Your task to perform on an android device: Turn on the flashlight Image 0: 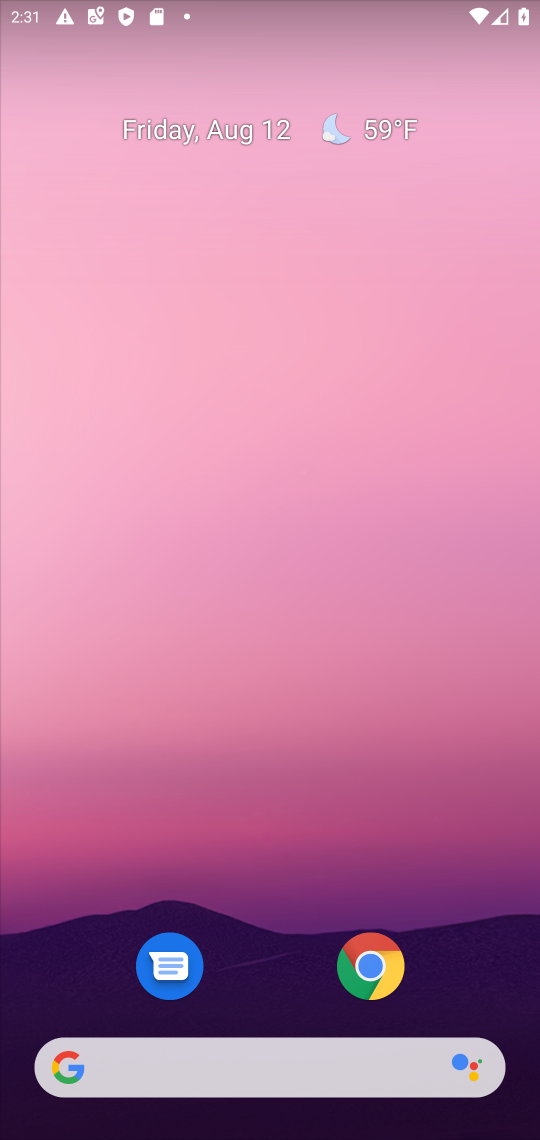
Step 0: drag from (275, 853) to (318, 578)
Your task to perform on an android device: Turn on the flashlight Image 1: 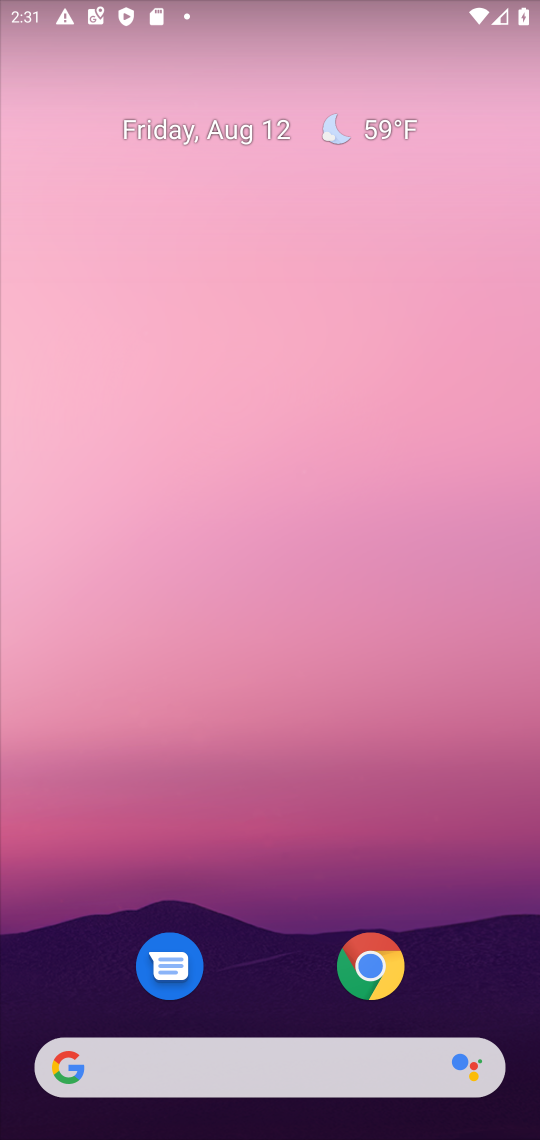
Step 1: drag from (229, 834) to (333, 136)
Your task to perform on an android device: Turn on the flashlight Image 2: 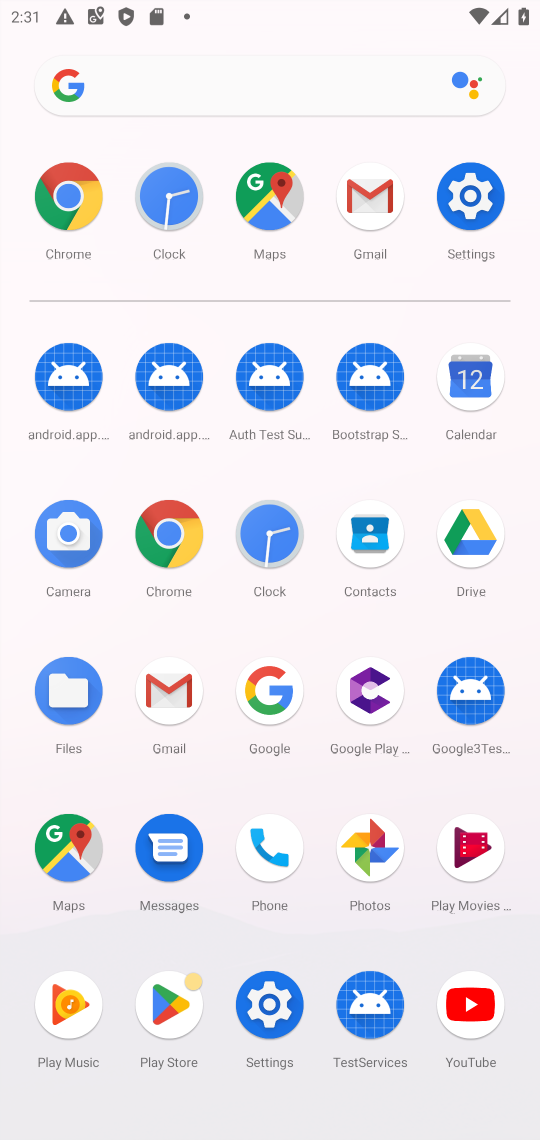
Step 2: click (266, 1005)
Your task to perform on an android device: Turn on the flashlight Image 3: 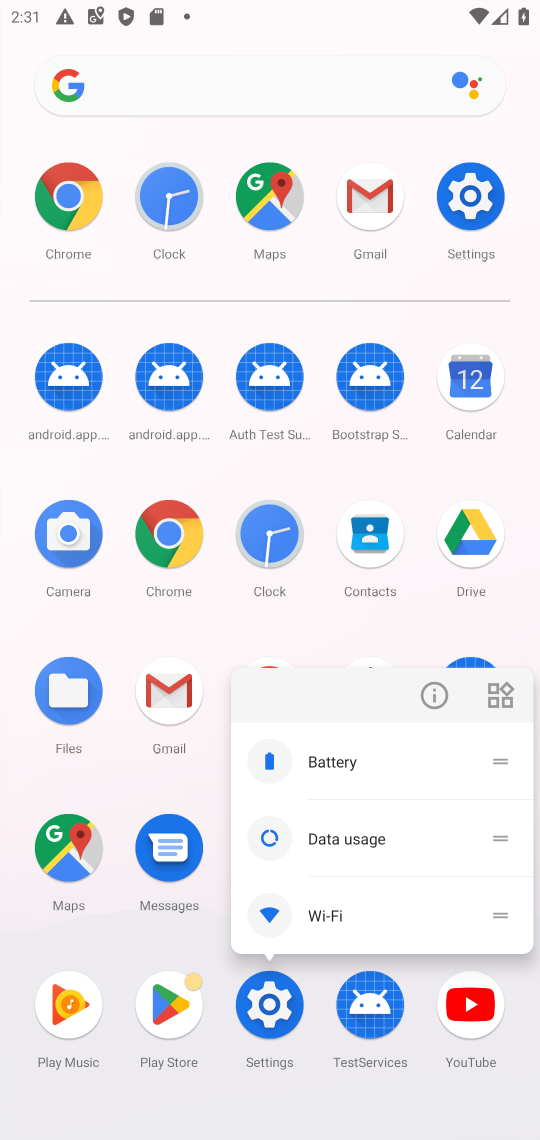
Step 3: click (268, 994)
Your task to perform on an android device: Turn on the flashlight Image 4: 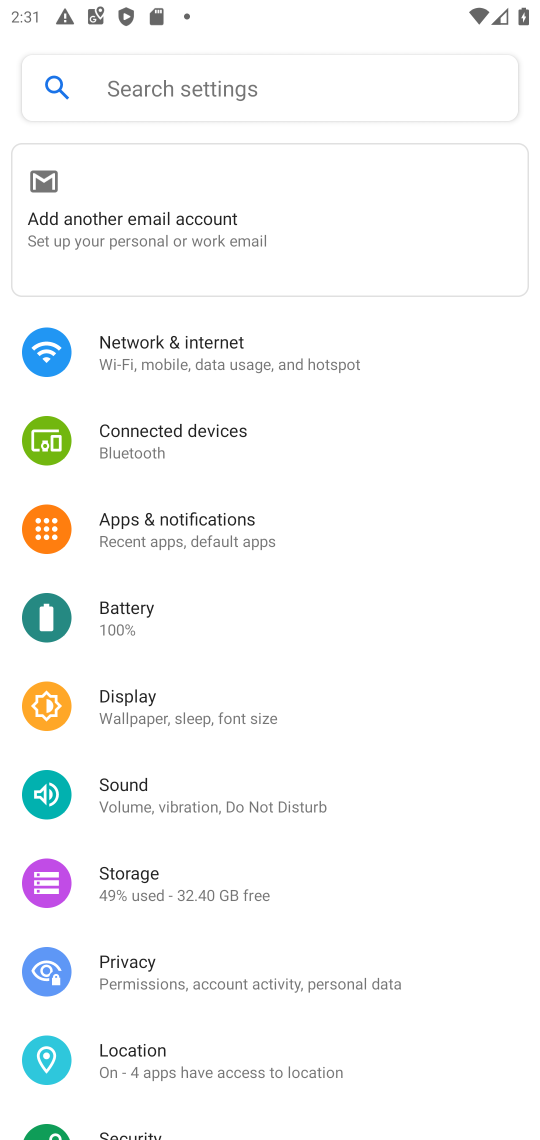
Step 4: click (222, 712)
Your task to perform on an android device: Turn on the flashlight Image 5: 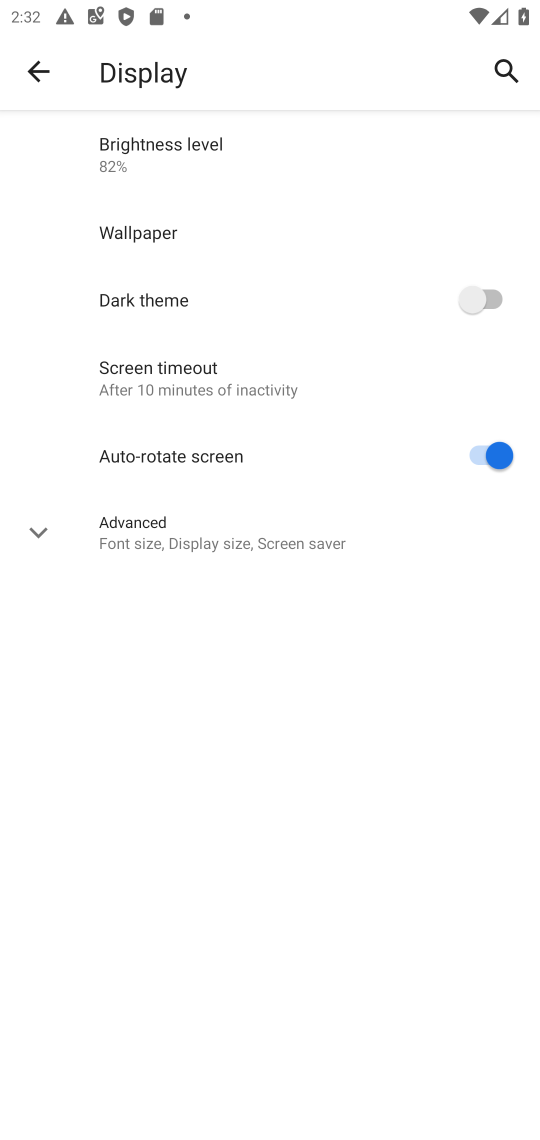
Step 5: click (119, 361)
Your task to perform on an android device: Turn on the flashlight Image 6: 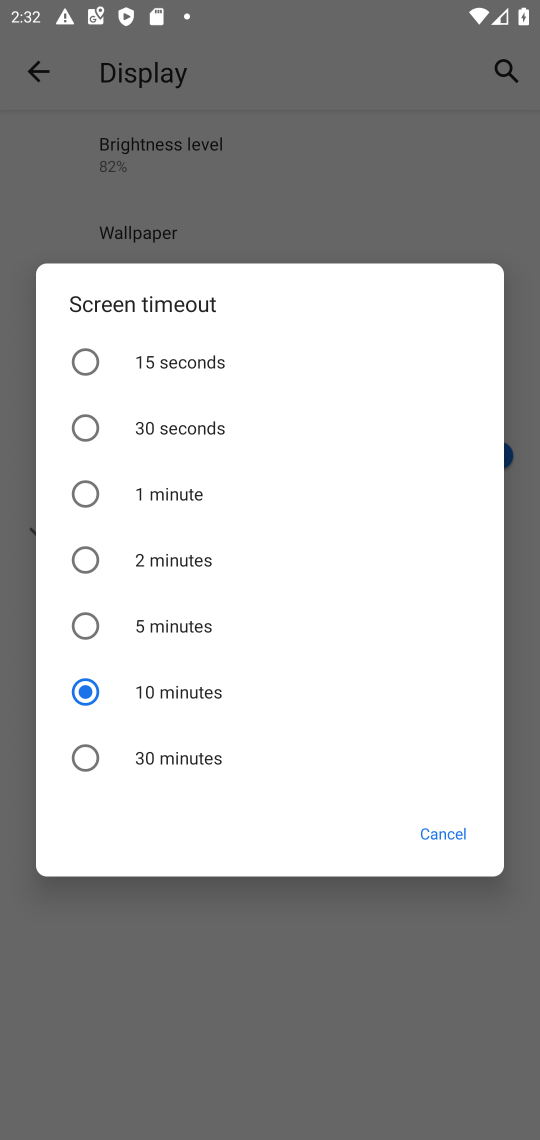
Step 6: task complete